Your task to perform on an android device: Go to Google maps Image 0: 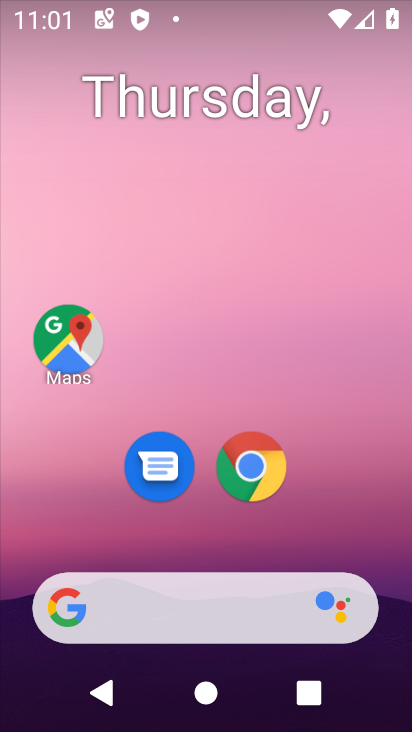
Step 0: drag from (140, 555) to (61, 10)
Your task to perform on an android device: Go to Google maps Image 1: 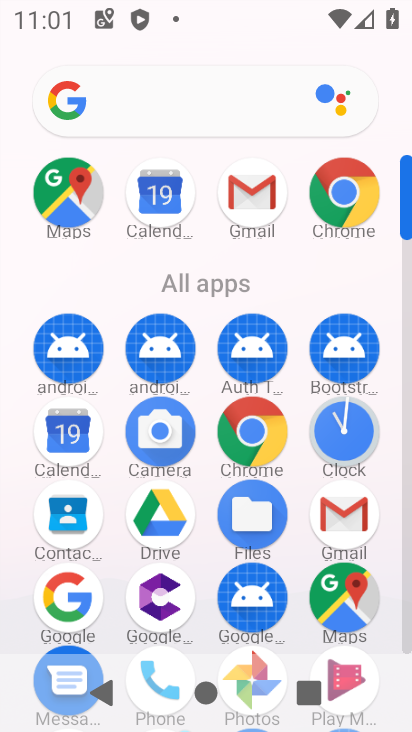
Step 1: click (337, 597)
Your task to perform on an android device: Go to Google maps Image 2: 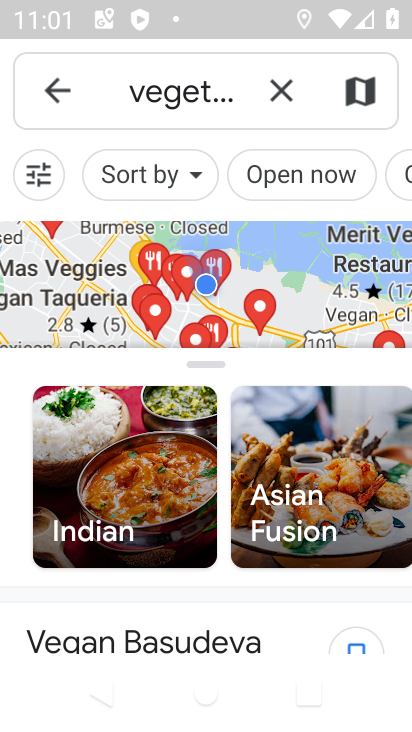
Step 2: task complete